Your task to perform on an android device: uninstall "Pinterest" Image 0: 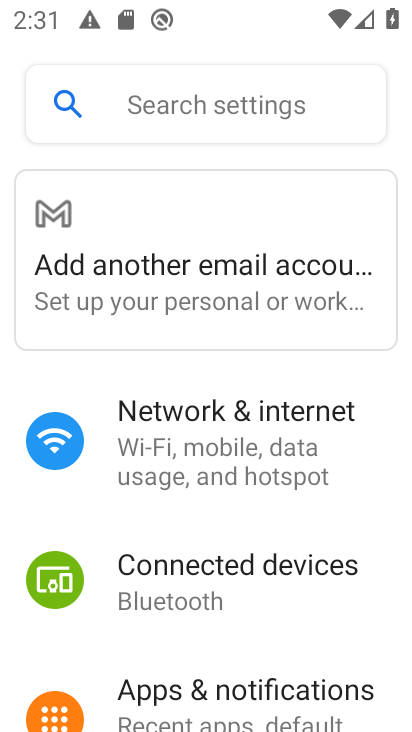
Step 0: press home button
Your task to perform on an android device: uninstall "Pinterest" Image 1: 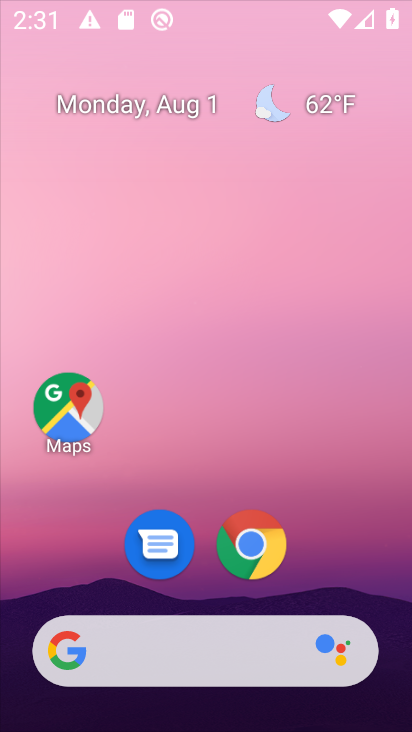
Step 1: drag from (355, 641) to (252, 115)
Your task to perform on an android device: uninstall "Pinterest" Image 2: 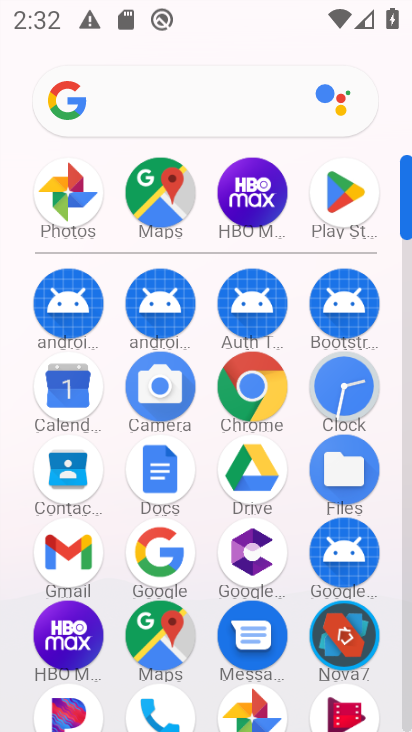
Step 2: click (323, 218)
Your task to perform on an android device: uninstall "Pinterest" Image 3: 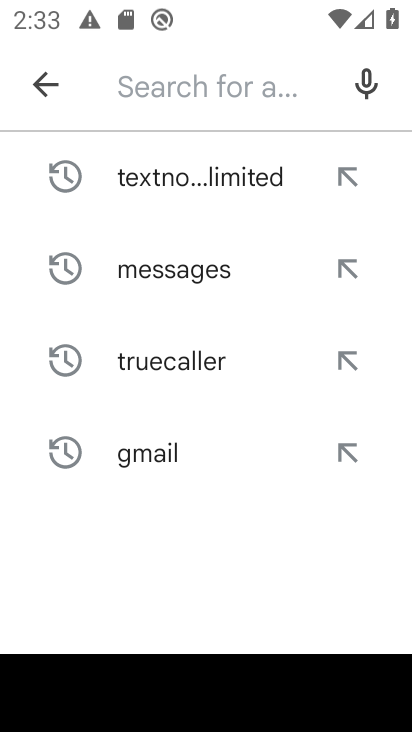
Step 3: type "Pinterest"
Your task to perform on an android device: uninstall "Pinterest" Image 4: 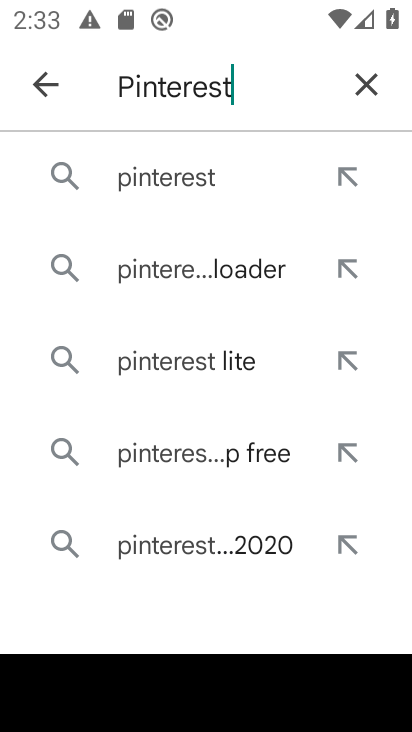
Step 4: click (196, 191)
Your task to perform on an android device: uninstall "Pinterest" Image 5: 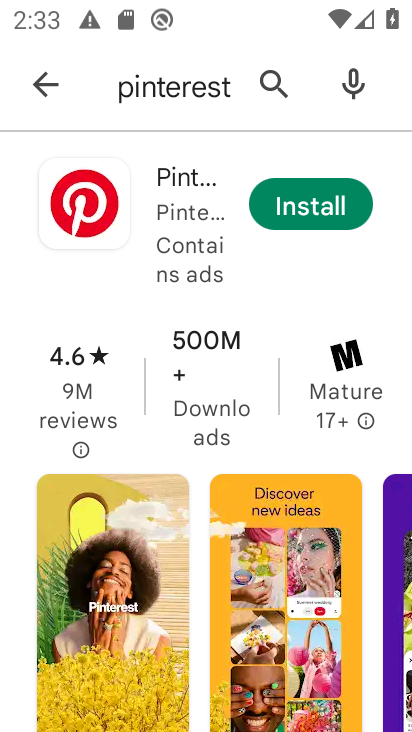
Step 5: task complete